Your task to perform on an android device: Open Amazon Image 0: 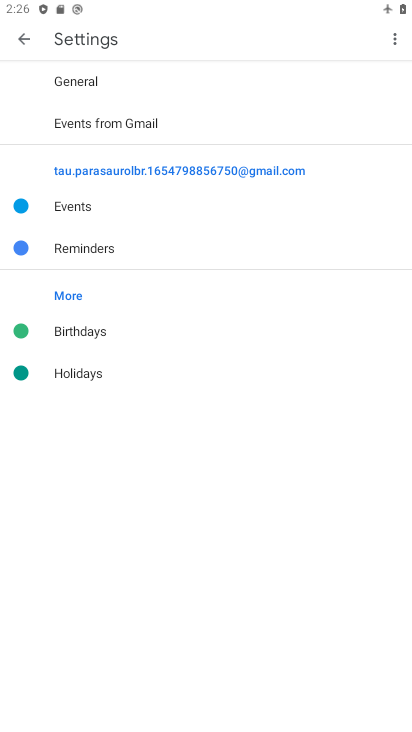
Step 0: press home button
Your task to perform on an android device: Open Amazon Image 1: 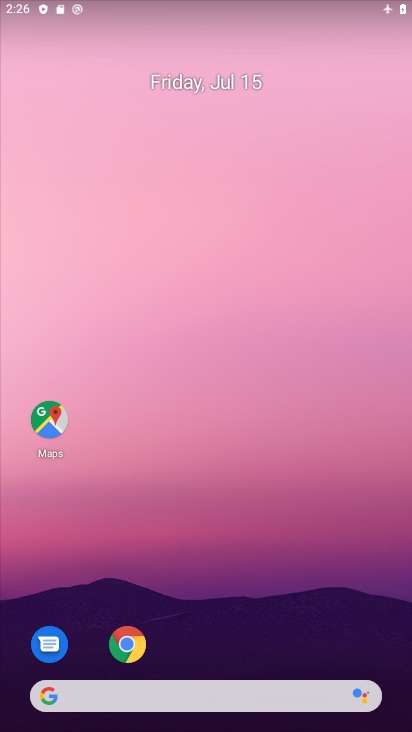
Step 1: drag from (249, 662) to (303, 18)
Your task to perform on an android device: Open Amazon Image 2: 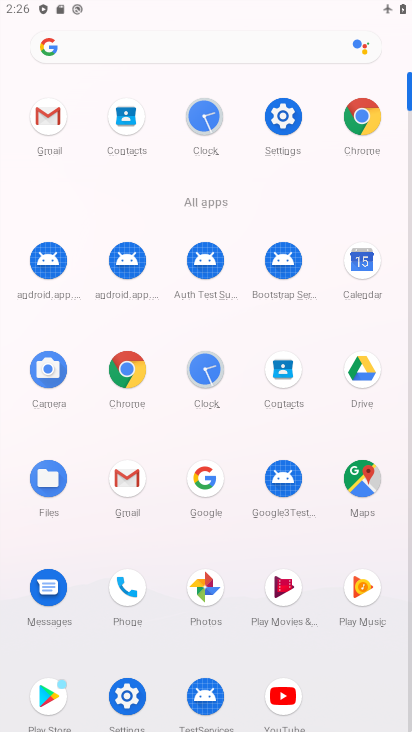
Step 2: click (136, 372)
Your task to perform on an android device: Open Amazon Image 3: 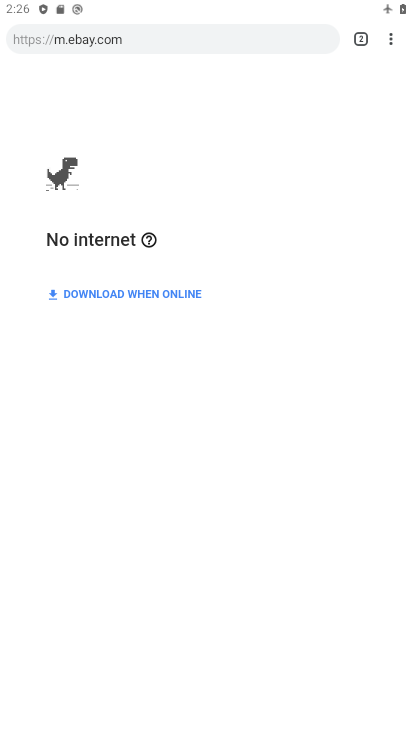
Step 3: click (192, 36)
Your task to perform on an android device: Open Amazon Image 4: 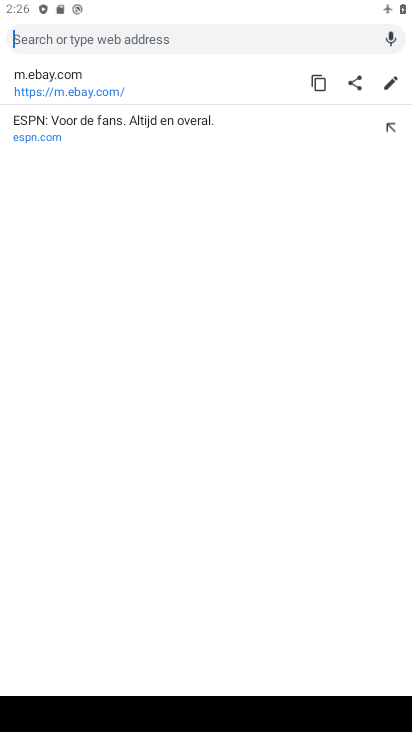
Step 4: type "amazon"
Your task to perform on an android device: Open Amazon Image 5: 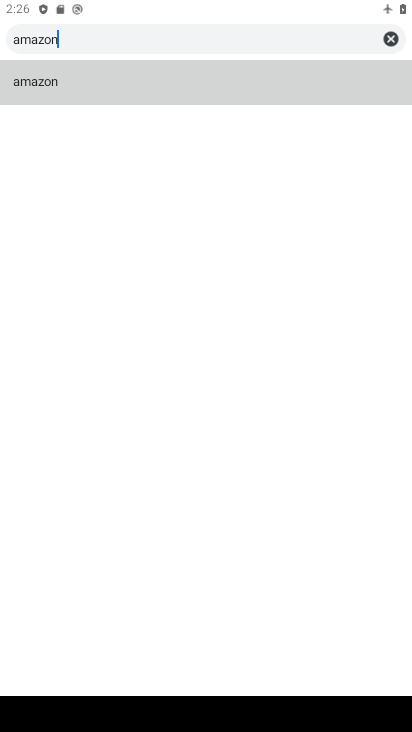
Step 5: click (87, 78)
Your task to perform on an android device: Open Amazon Image 6: 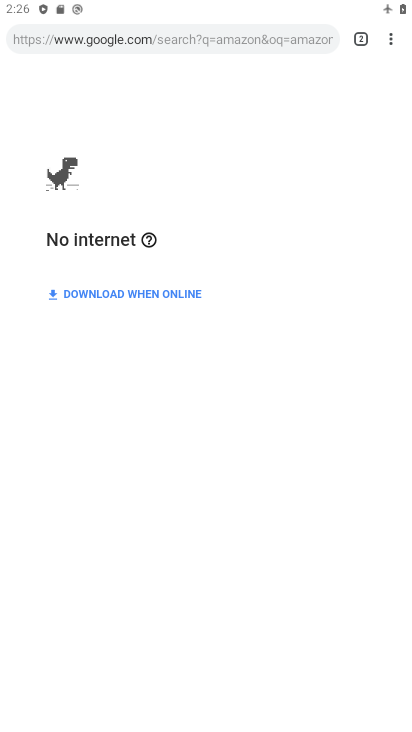
Step 6: task complete